Your task to perform on an android device: open app "ZOOM Cloud Meetings" Image 0: 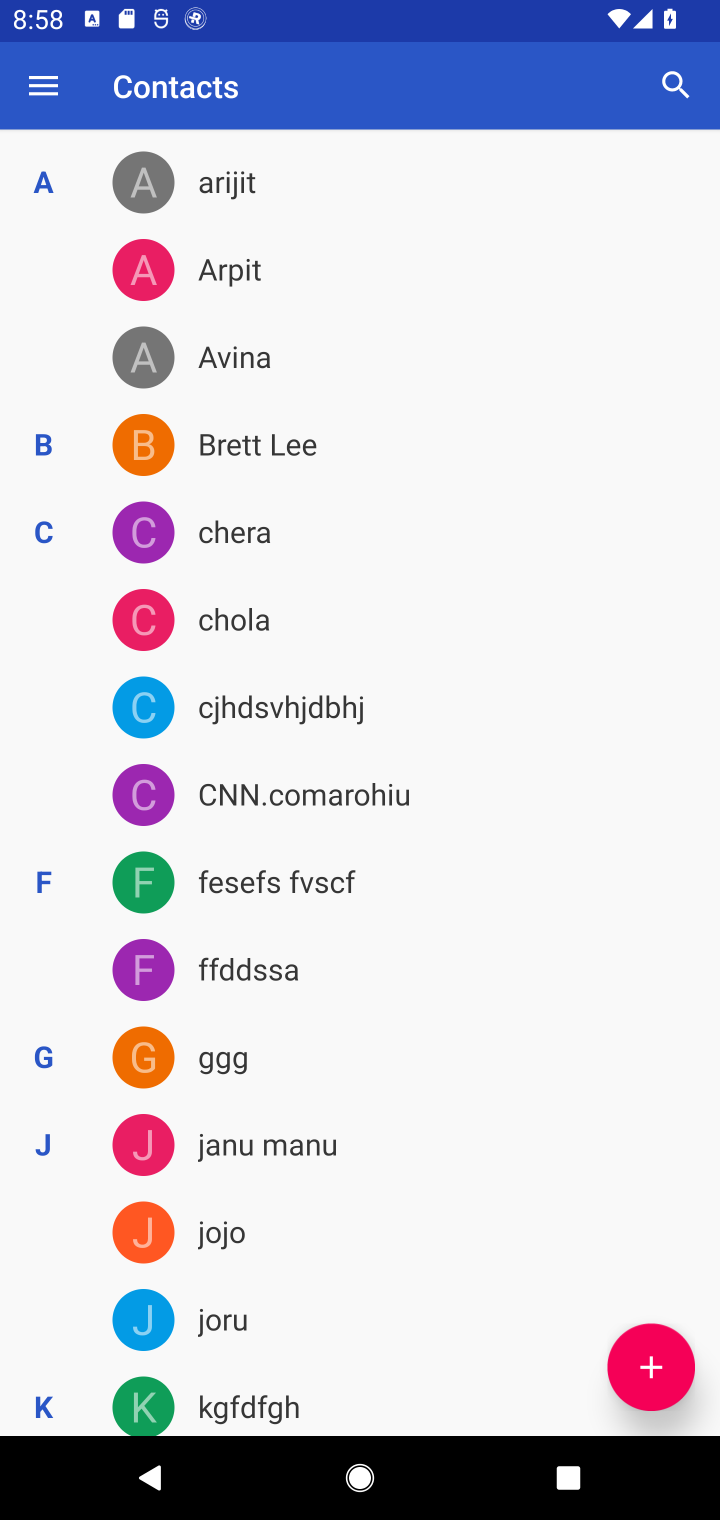
Step 0: press home button
Your task to perform on an android device: open app "ZOOM Cloud Meetings" Image 1: 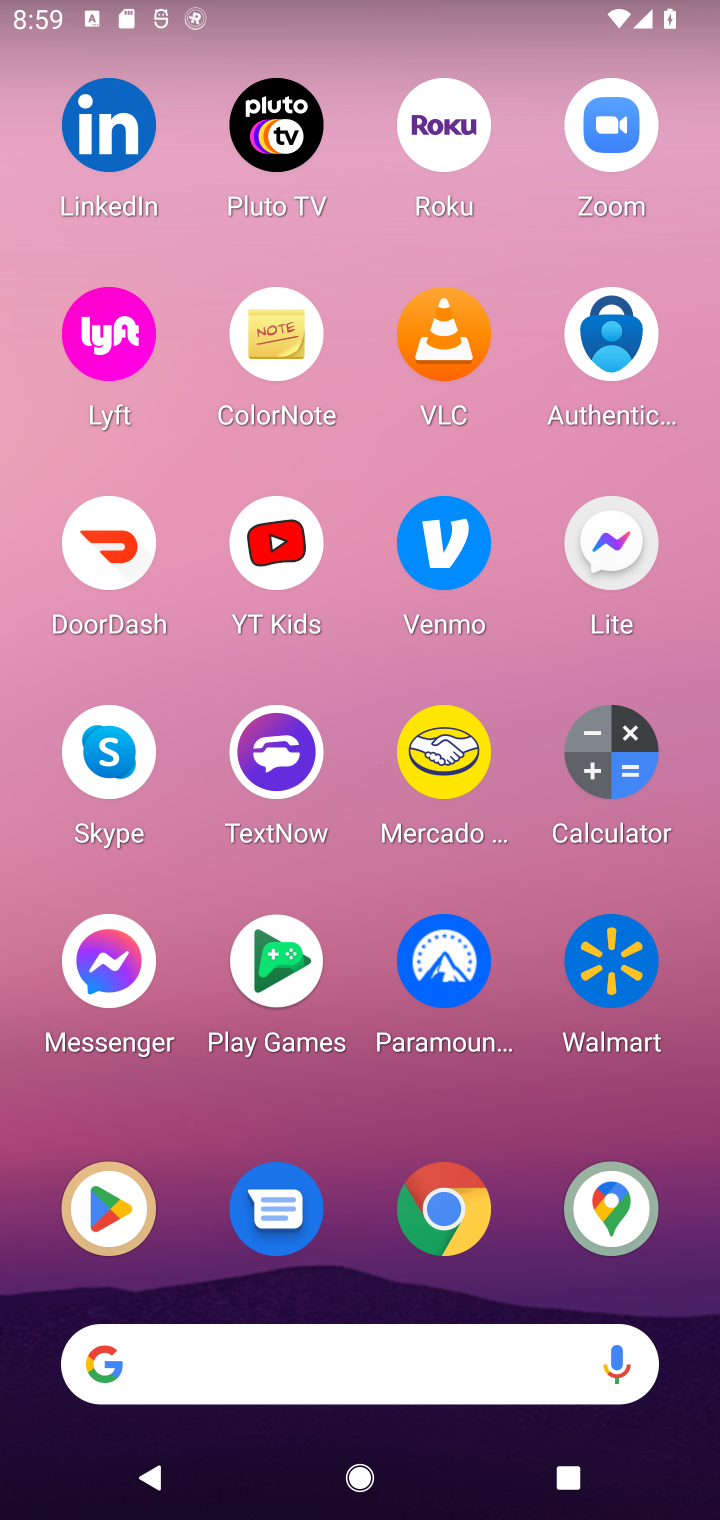
Step 1: drag from (688, 1130) to (705, 1214)
Your task to perform on an android device: open app "ZOOM Cloud Meetings" Image 2: 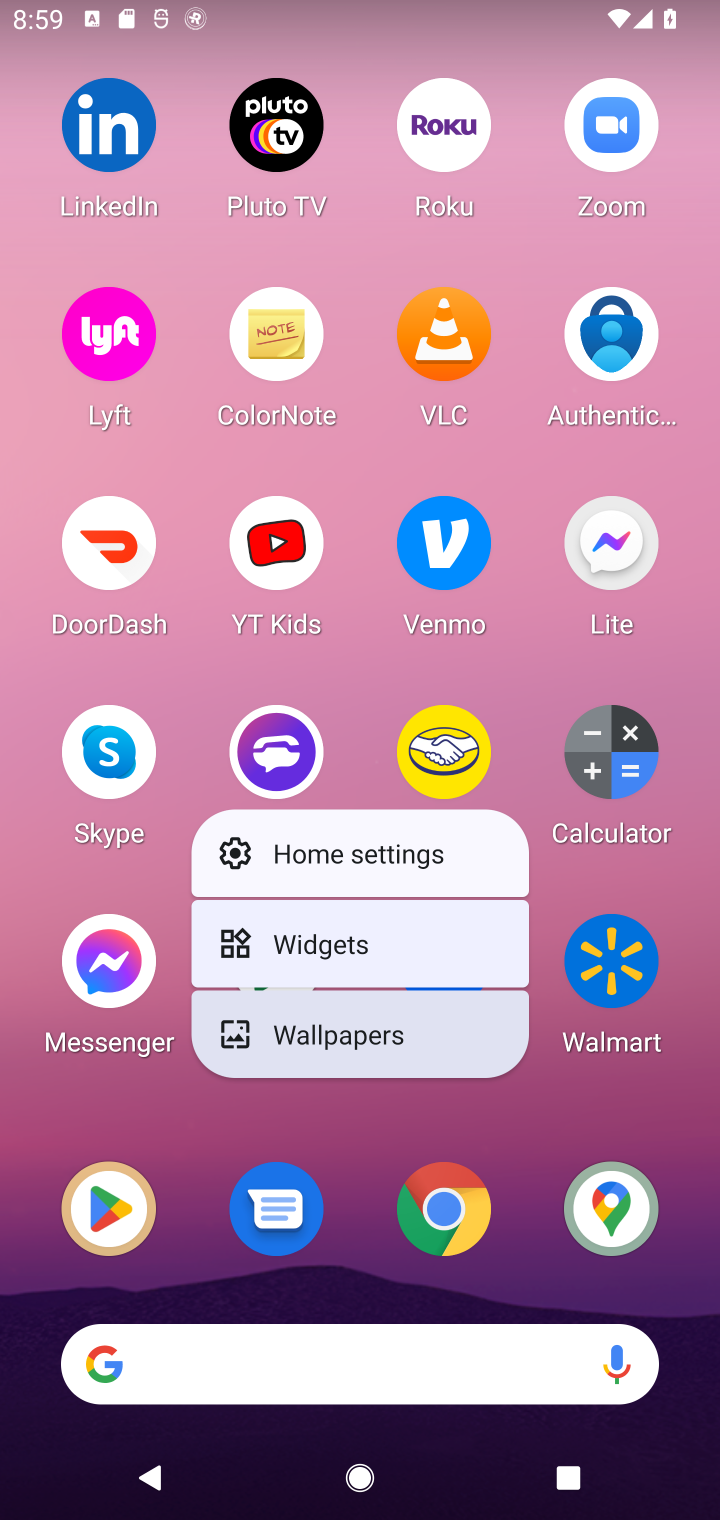
Step 2: click (638, 128)
Your task to perform on an android device: open app "ZOOM Cloud Meetings" Image 3: 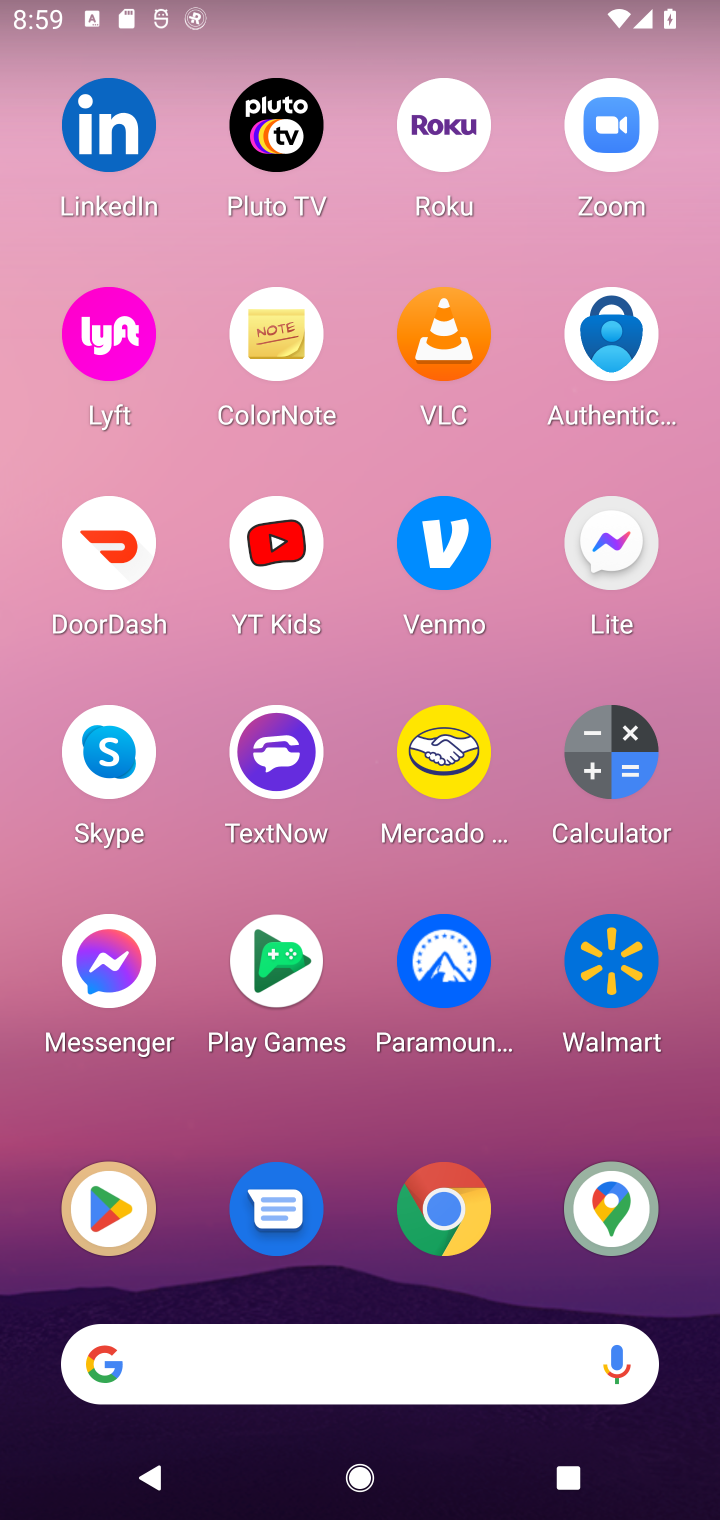
Step 3: click (614, 131)
Your task to perform on an android device: open app "ZOOM Cloud Meetings" Image 4: 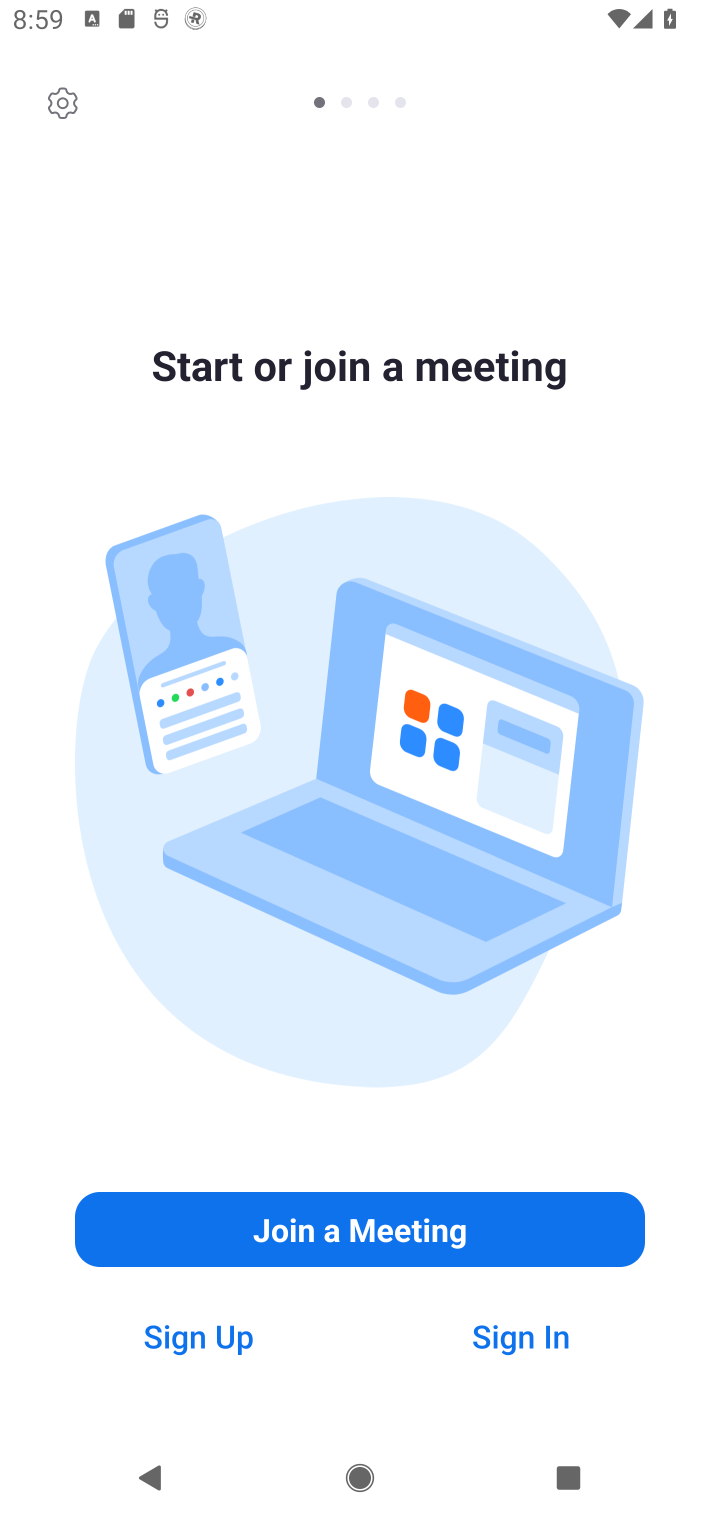
Step 4: task complete